Your task to perform on an android device: turn pop-ups on in chrome Image 0: 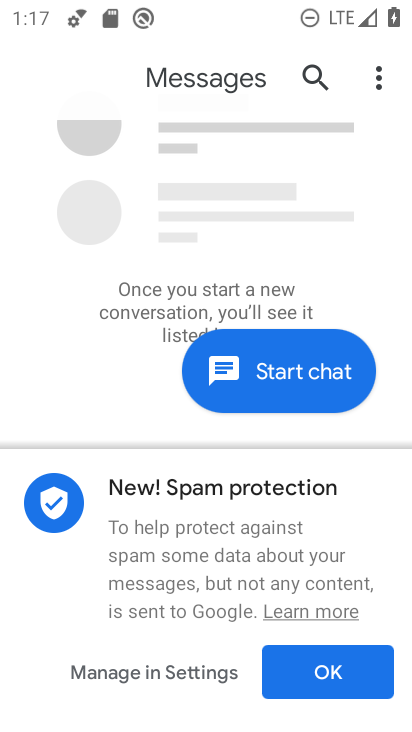
Step 0: press home button
Your task to perform on an android device: turn pop-ups on in chrome Image 1: 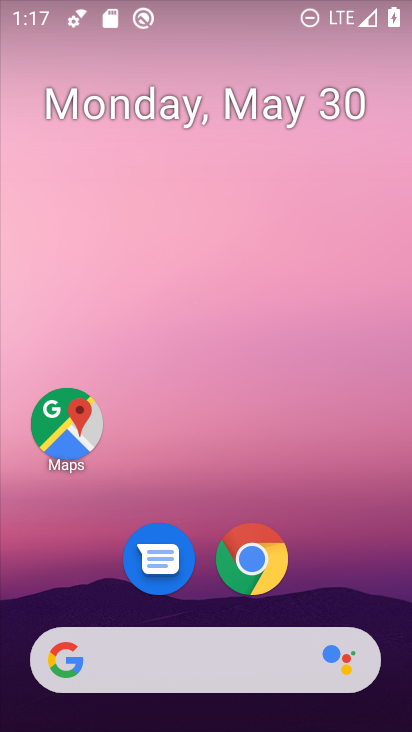
Step 1: click (246, 565)
Your task to perform on an android device: turn pop-ups on in chrome Image 2: 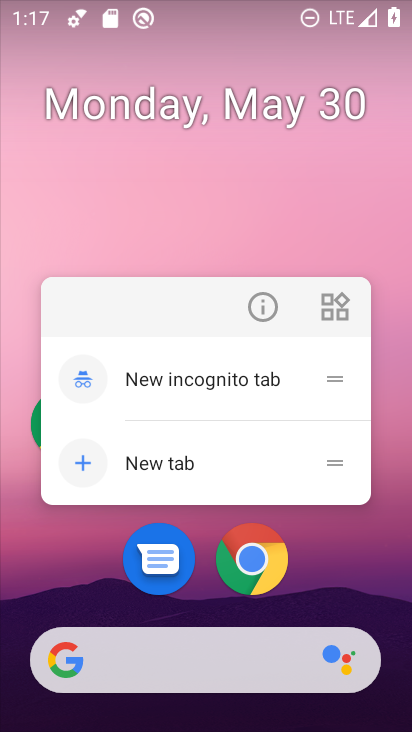
Step 2: click (237, 558)
Your task to perform on an android device: turn pop-ups on in chrome Image 3: 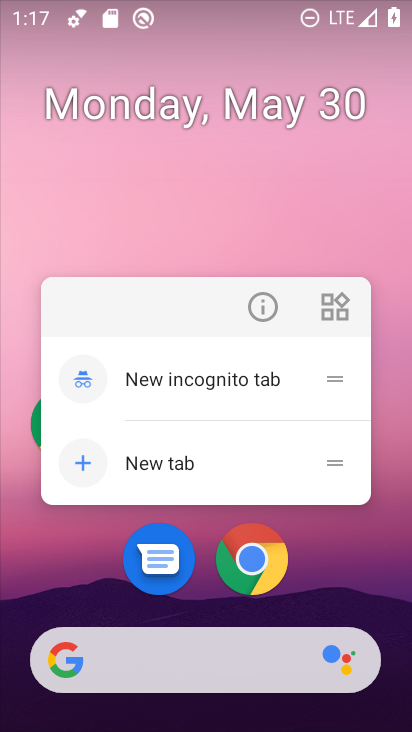
Step 3: click (257, 561)
Your task to perform on an android device: turn pop-ups on in chrome Image 4: 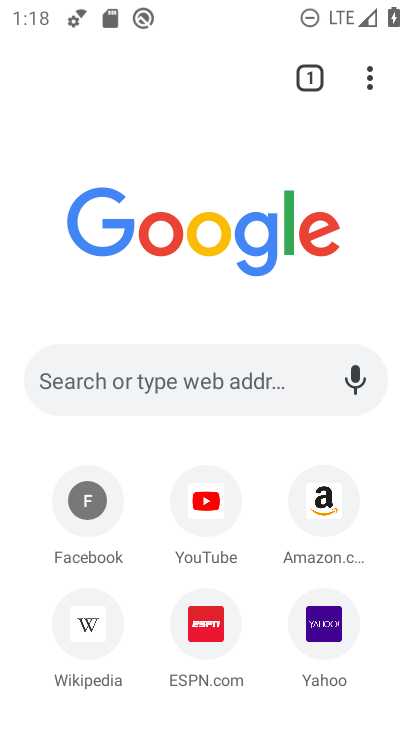
Step 4: click (367, 87)
Your task to perform on an android device: turn pop-ups on in chrome Image 5: 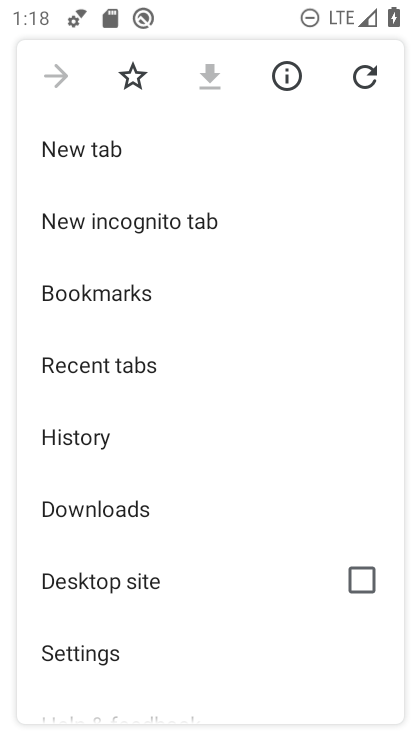
Step 5: click (137, 655)
Your task to perform on an android device: turn pop-ups on in chrome Image 6: 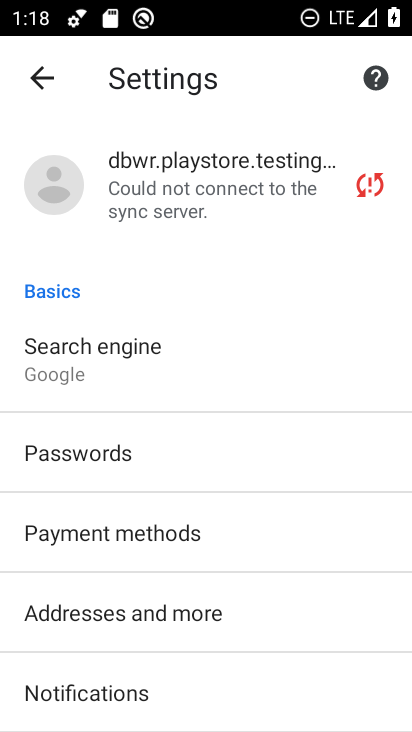
Step 6: drag from (162, 646) to (225, 164)
Your task to perform on an android device: turn pop-ups on in chrome Image 7: 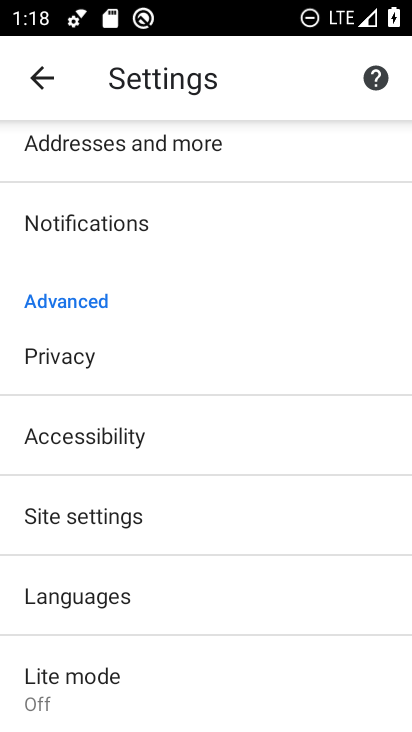
Step 7: click (116, 518)
Your task to perform on an android device: turn pop-ups on in chrome Image 8: 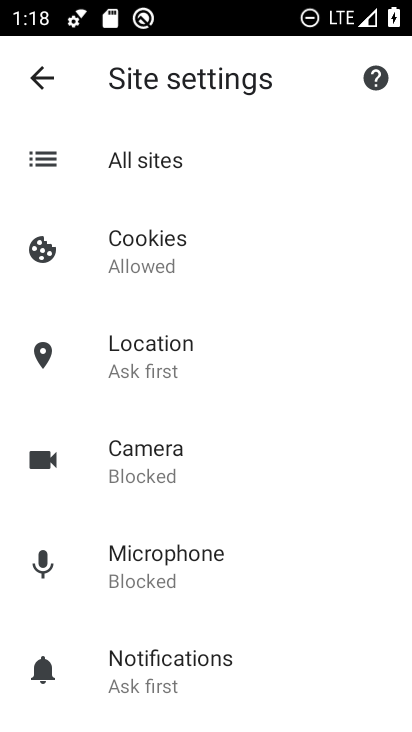
Step 8: drag from (186, 634) to (184, 291)
Your task to perform on an android device: turn pop-ups on in chrome Image 9: 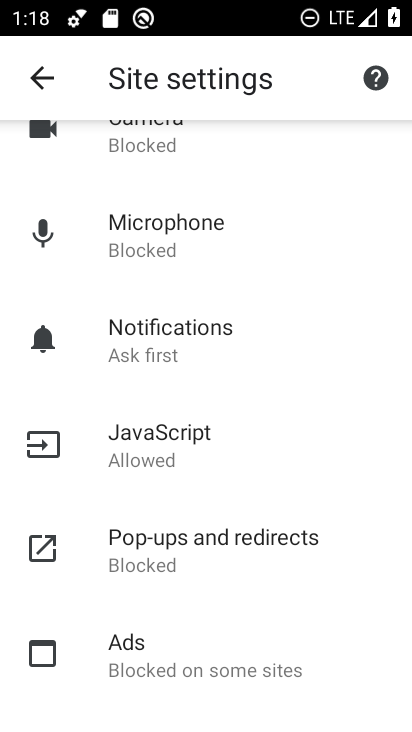
Step 9: click (189, 552)
Your task to perform on an android device: turn pop-ups on in chrome Image 10: 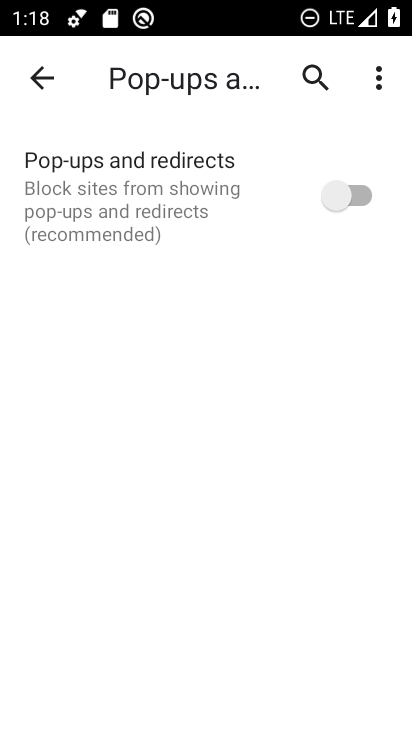
Step 10: click (359, 203)
Your task to perform on an android device: turn pop-ups on in chrome Image 11: 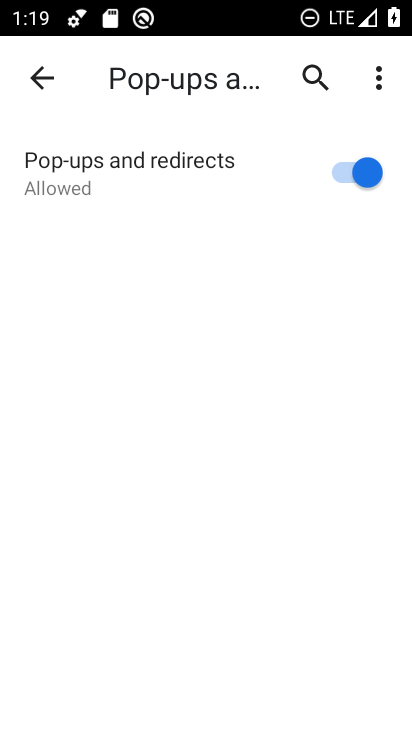
Step 11: task complete